Your task to perform on an android device: Go to privacy settings Image 0: 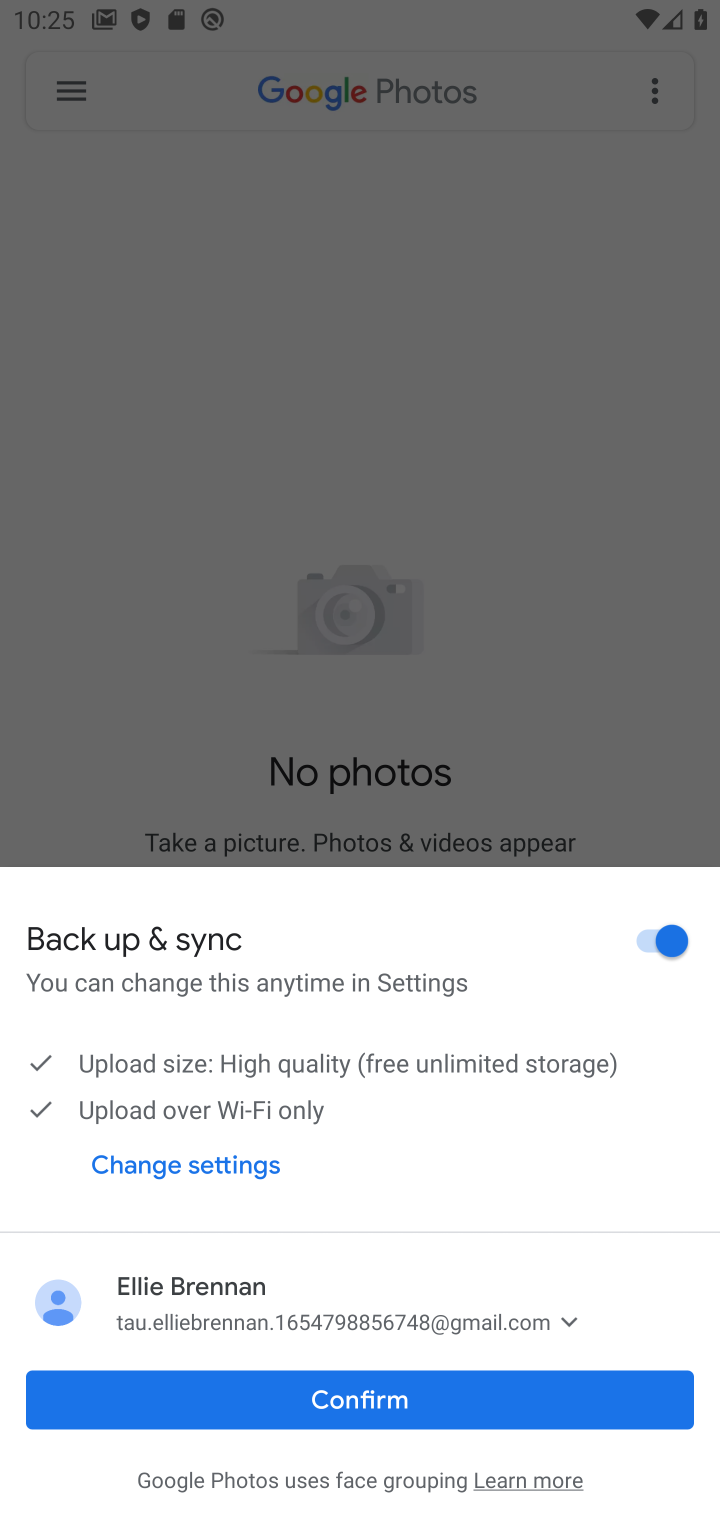
Step 0: press back button
Your task to perform on an android device: Go to privacy settings Image 1: 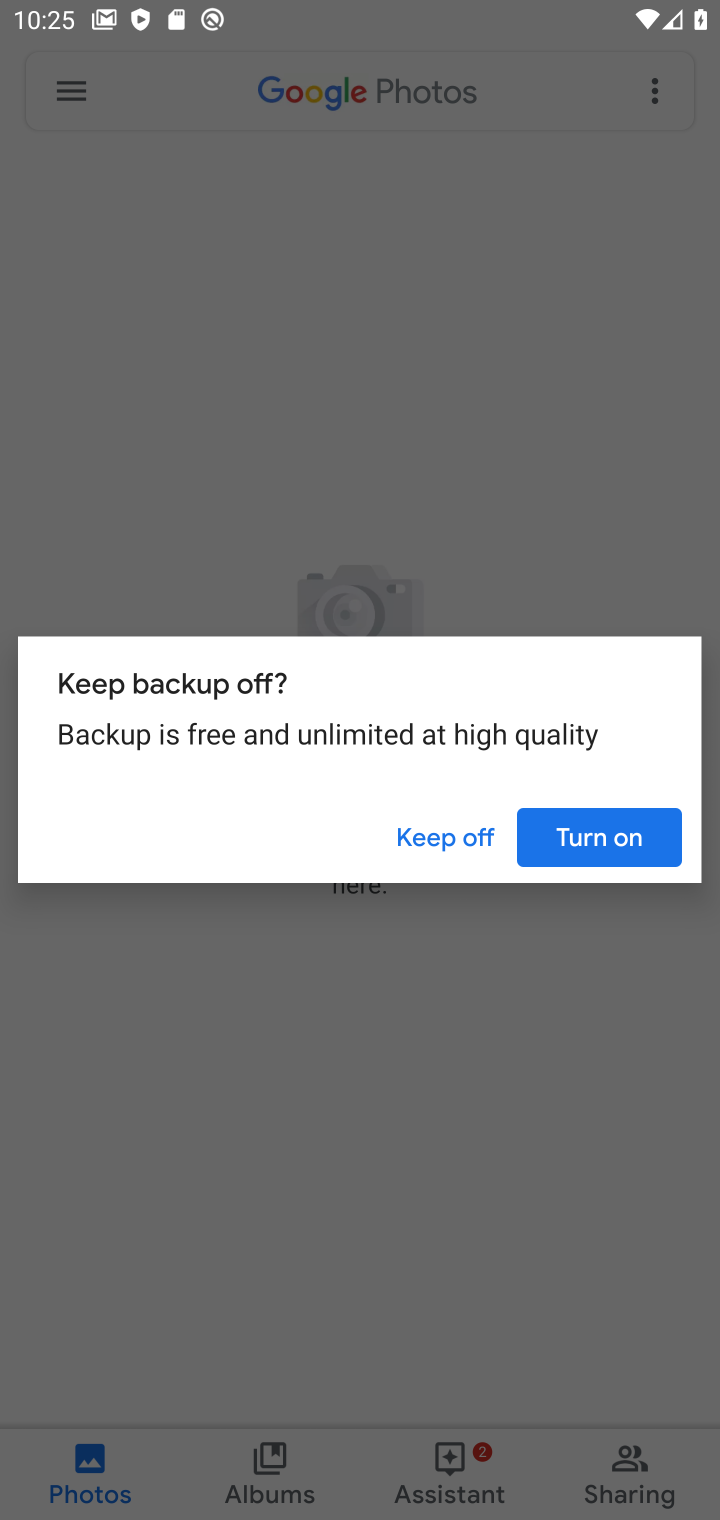
Step 1: press back button
Your task to perform on an android device: Go to privacy settings Image 2: 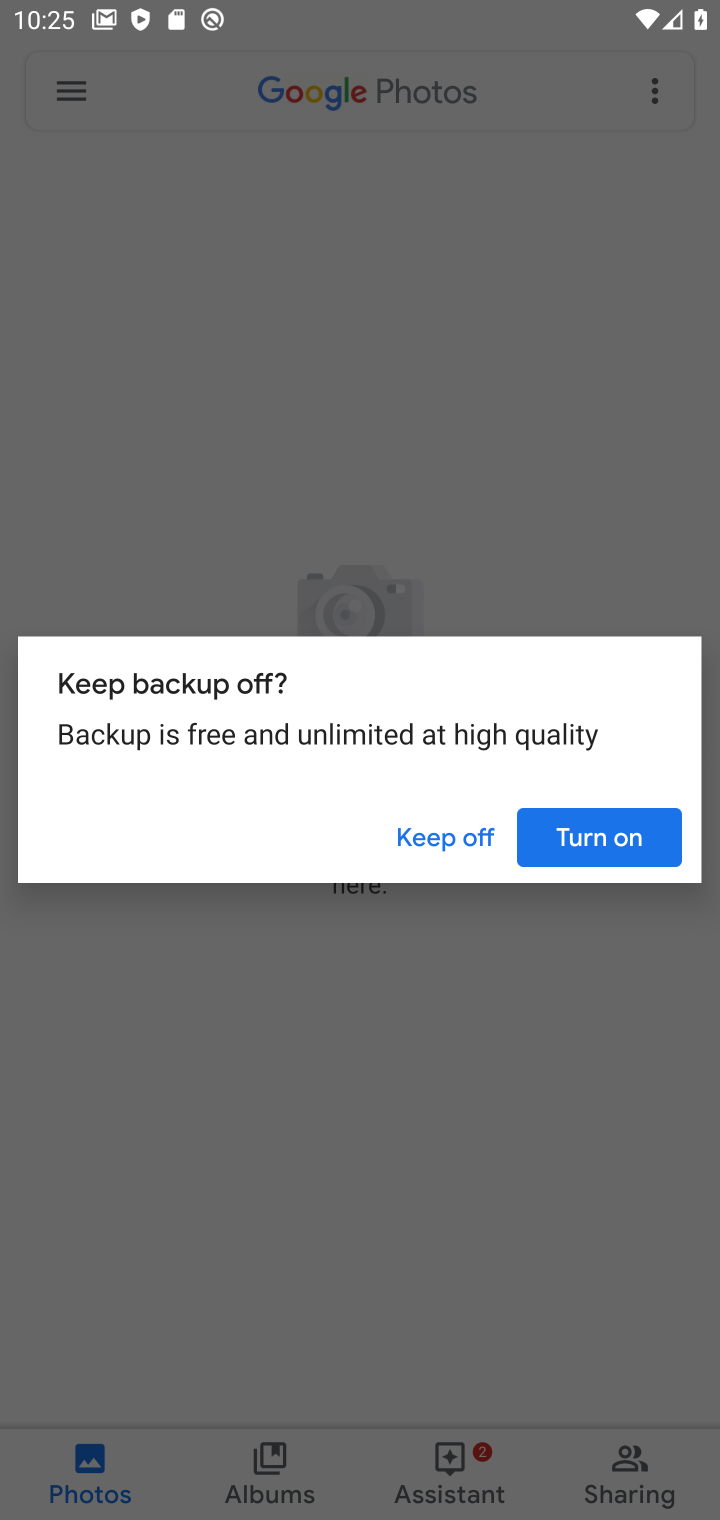
Step 2: press back button
Your task to perform on an android device: Go to privacy settings Image 3: 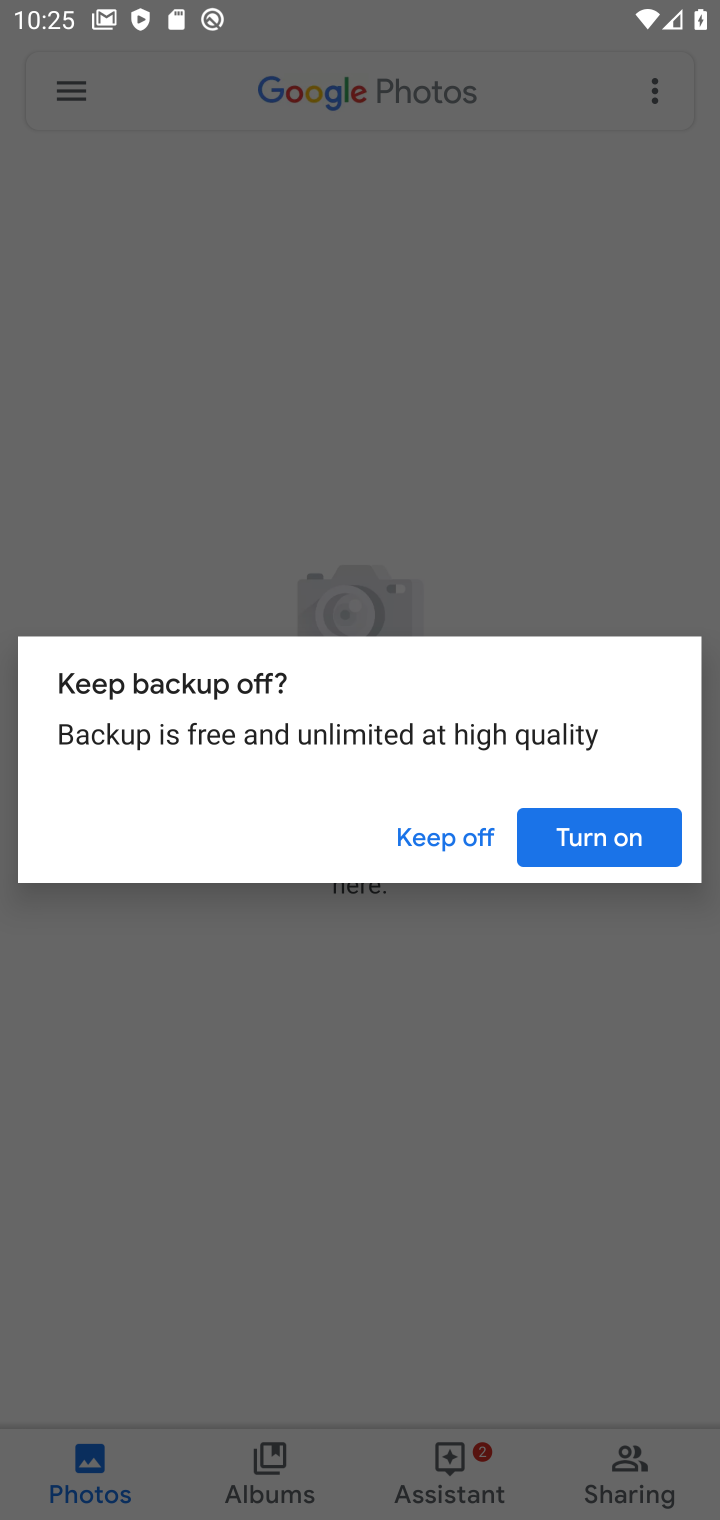
Step 3: press back button
Your task to perform on an android device: Go to privacy settings Image 4: 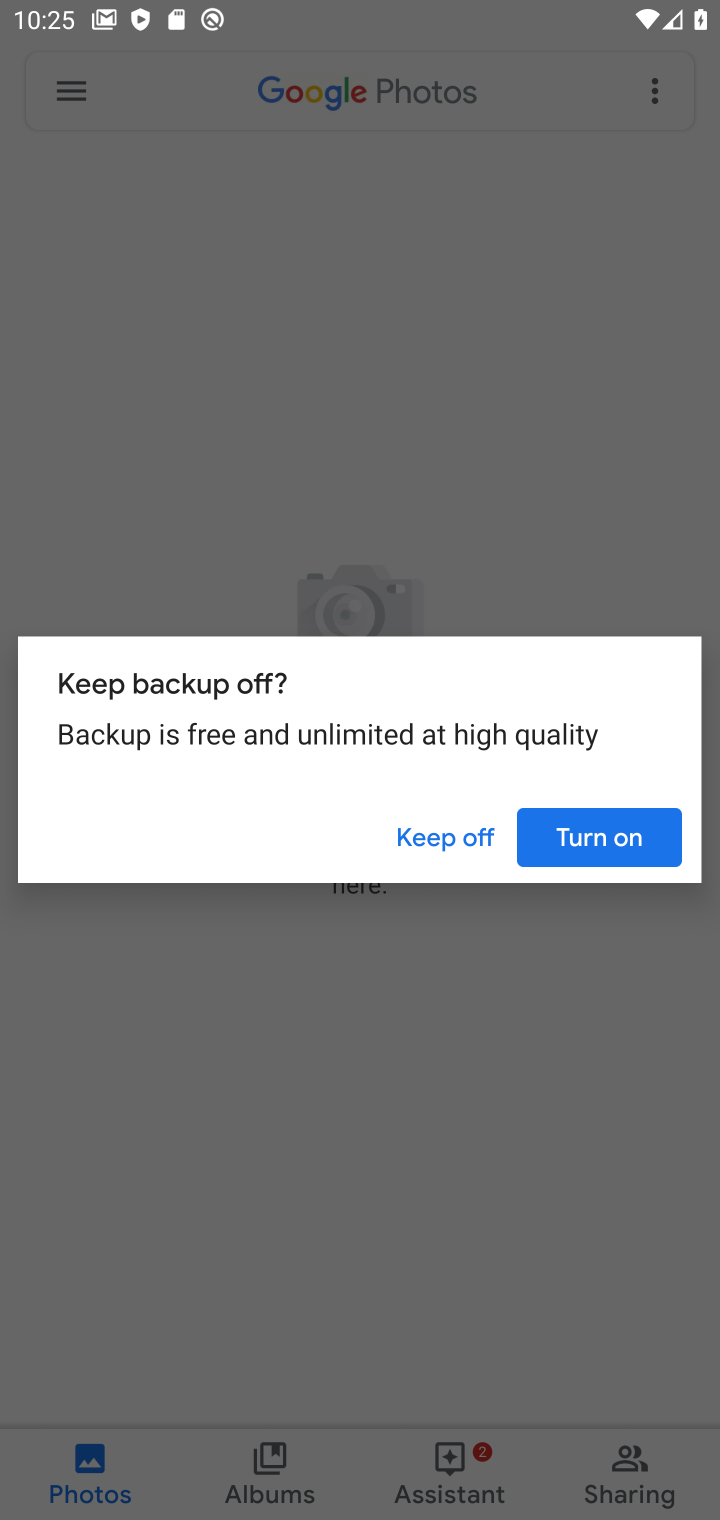
Step 4: press back button
Your task to perform on an android device: Go to privacy settings Image 5: 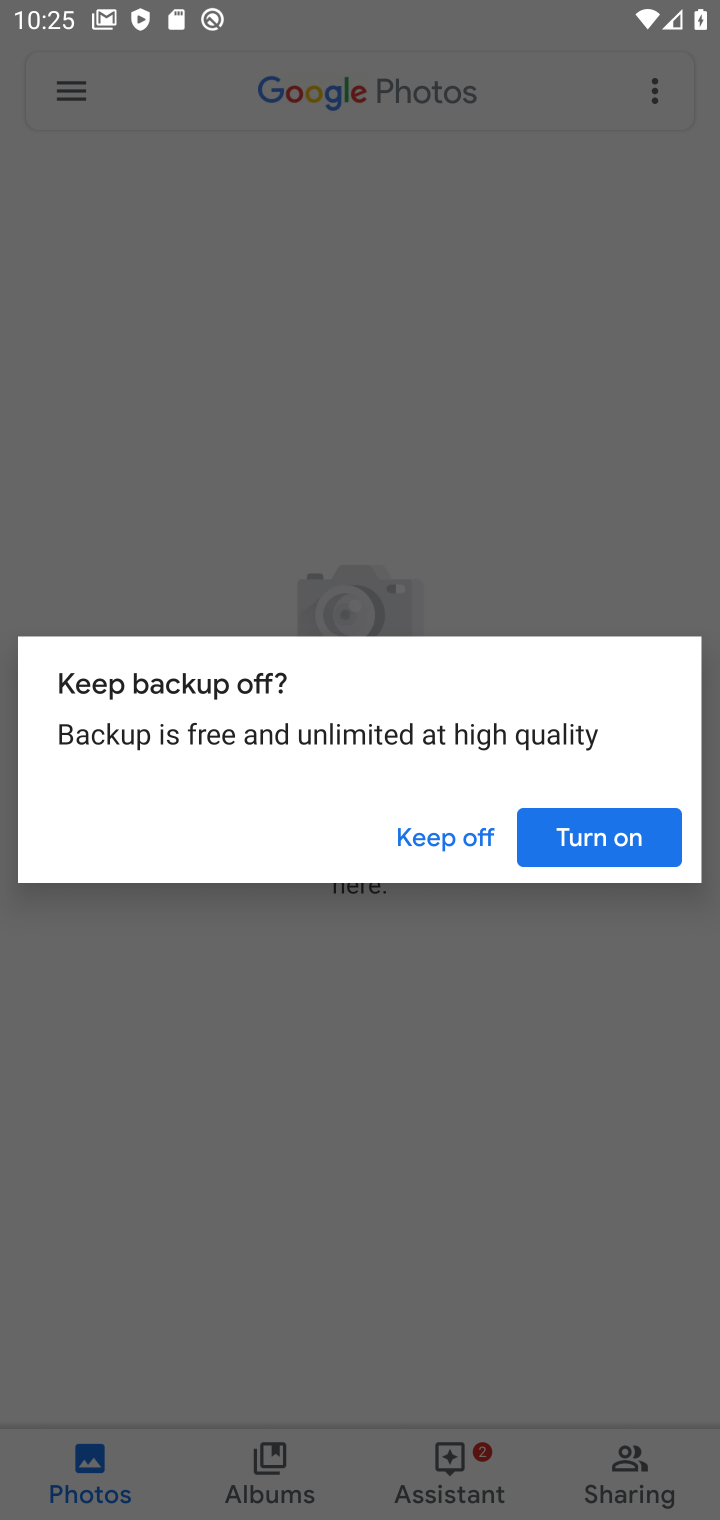
Step 5: press back button
Your task to perform on an android device: Go to privacy settings Image 6: 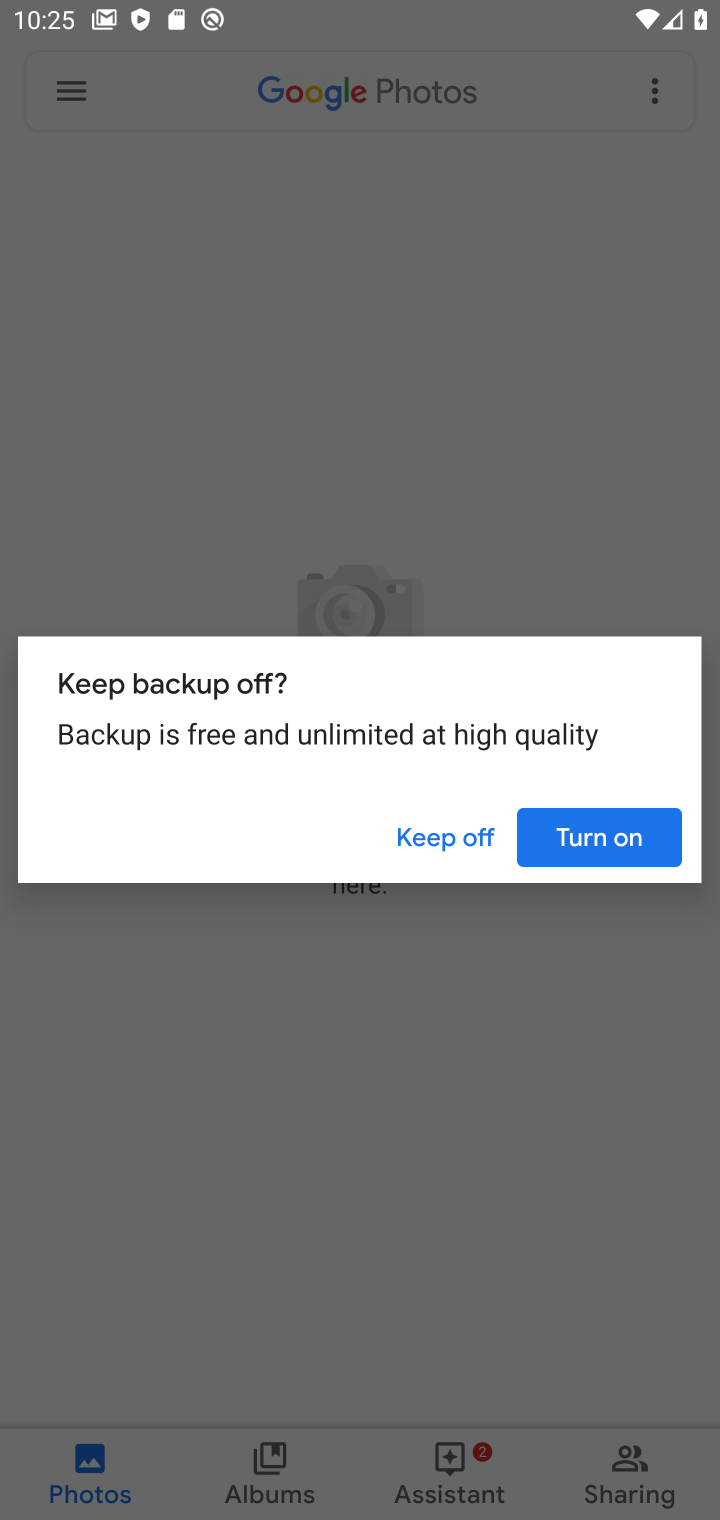
Step 6: press back button
Your task to perform on an android device: Go to privacy settings Image 7: 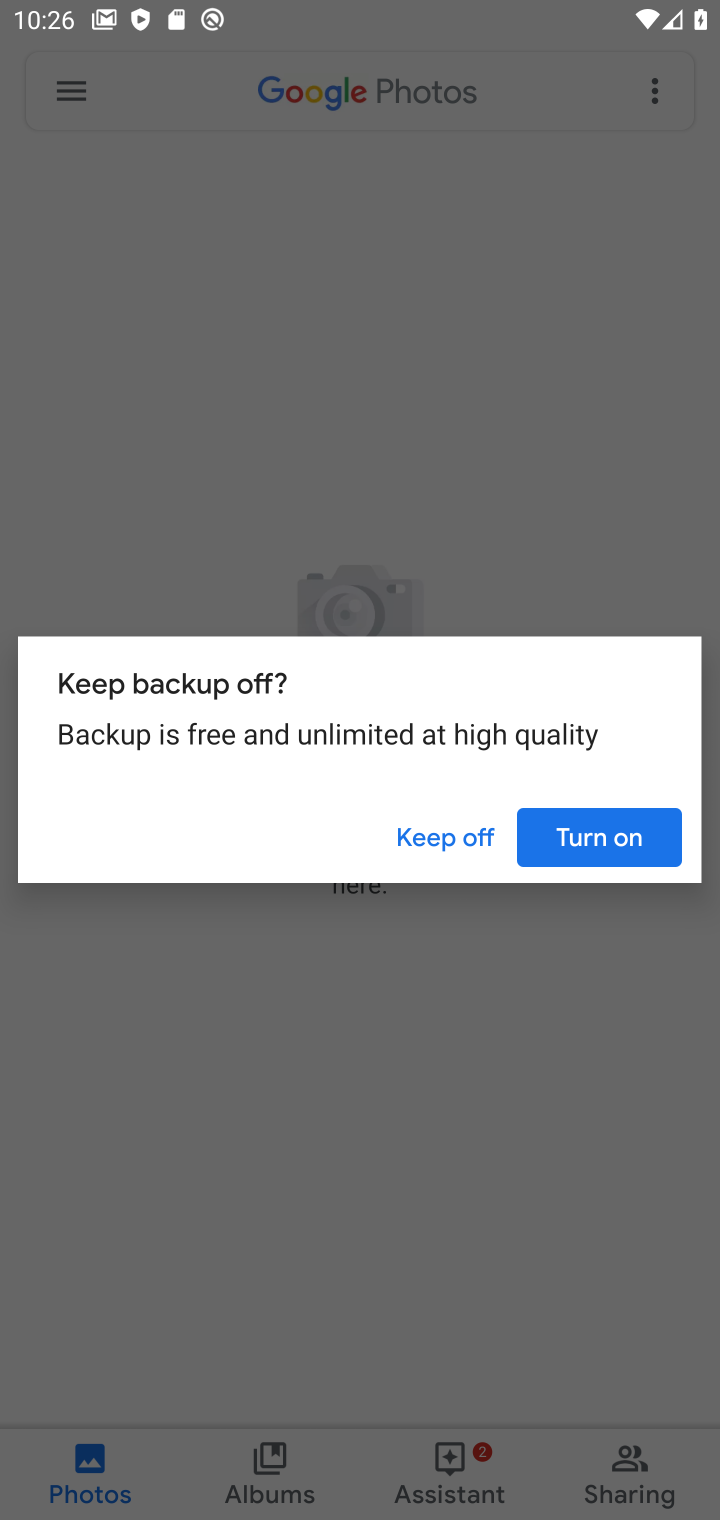
Step 7: press home button
Your task to perform on an android device: Go to privacy settings Image 8: 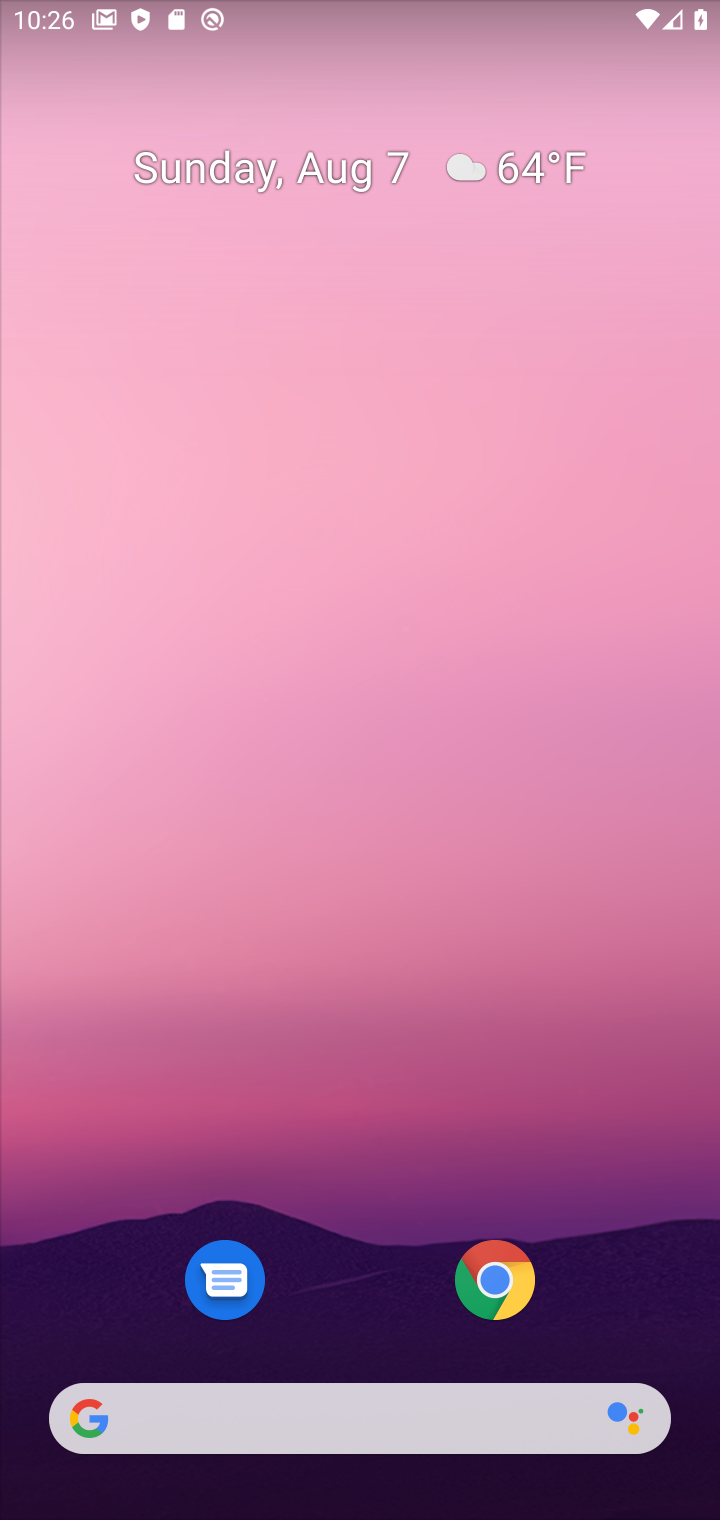
Step 8: drag from (371, 1303) to (521, 142)
Your task to perform on an android device: Go to privacy settings Image 9: 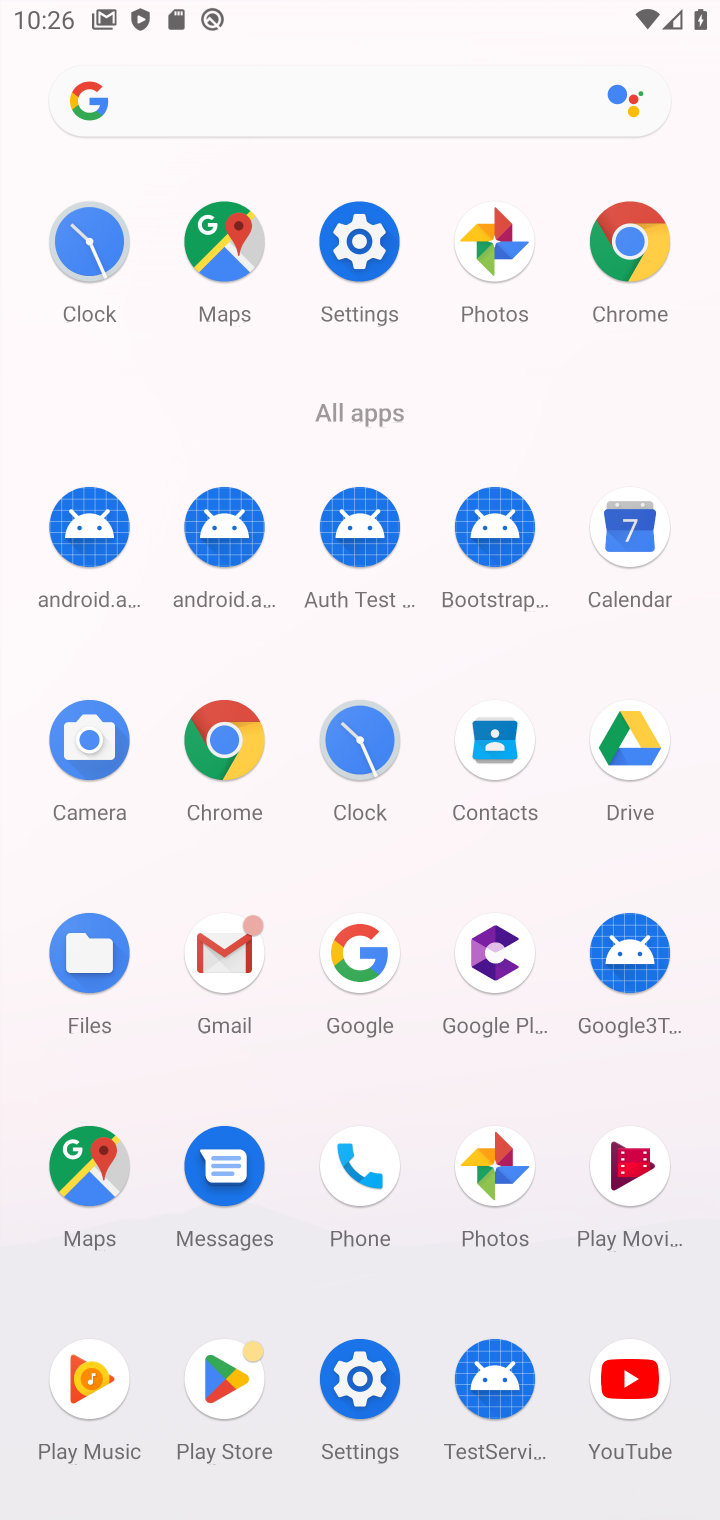
Step 9: click (350, 235)
Your task to perform on an android device: Go to privacy settings Image 10: 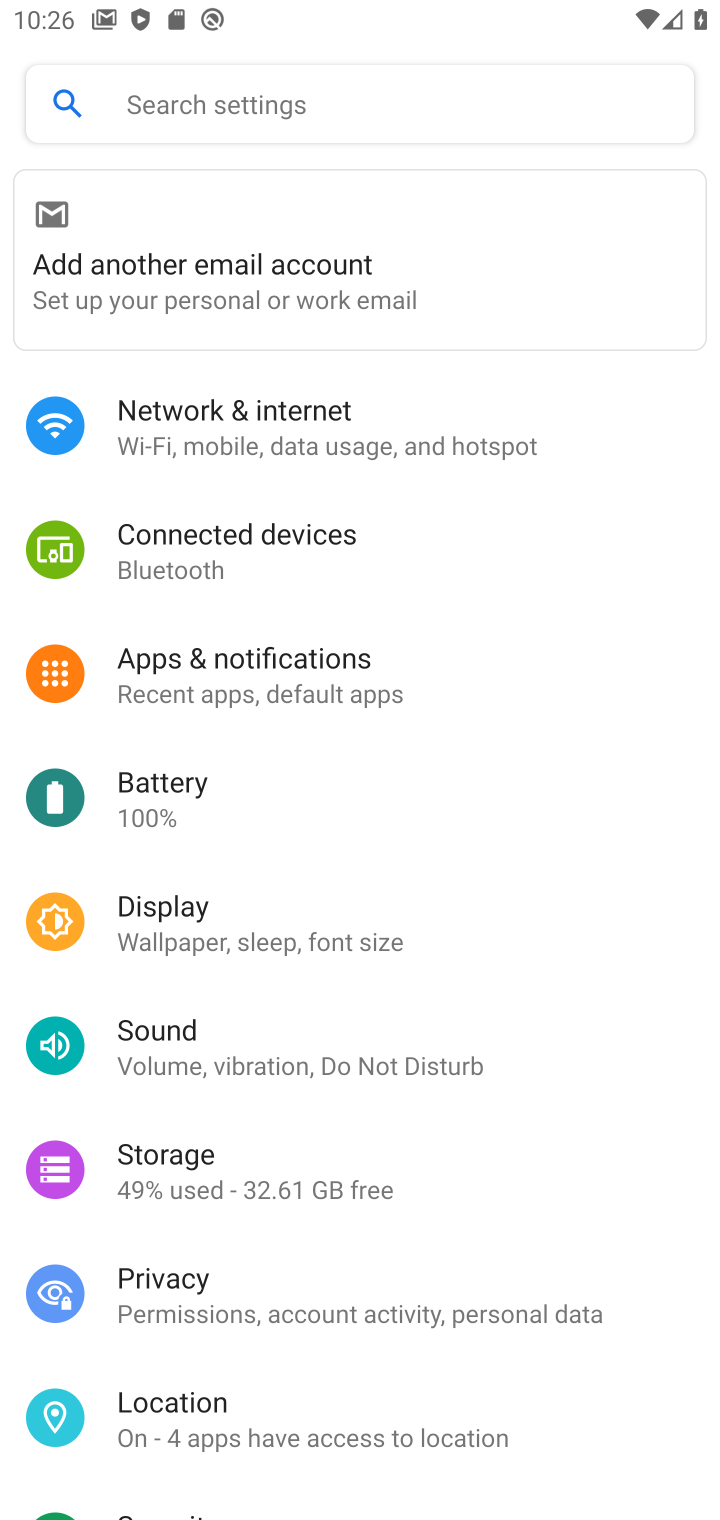
Step 10: click (236, 1272)
Your task to perform on an android device: Go to privacy settings Image 11: 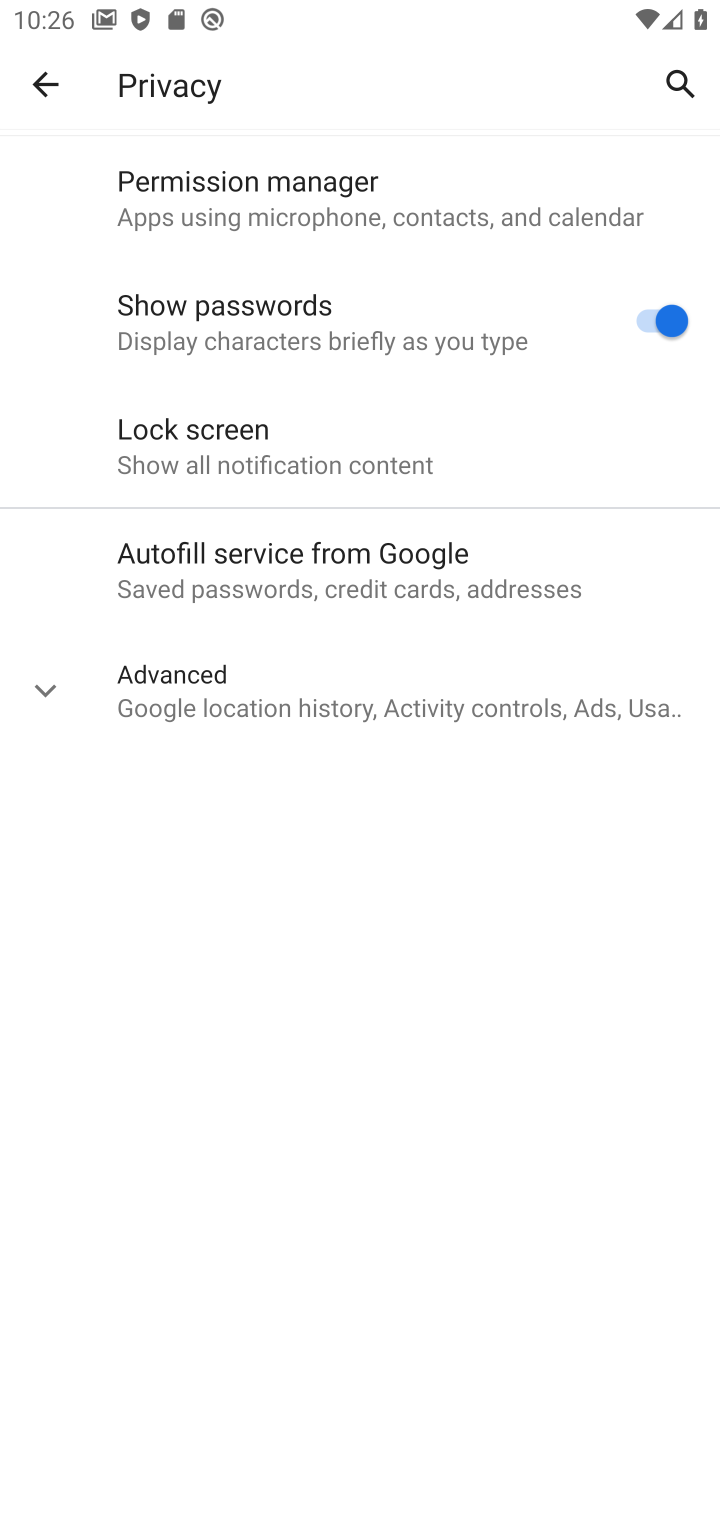
Step 11: task complete